Your task to perform on an android device: read, delete, or share a saved page in the chrome app Image 0: 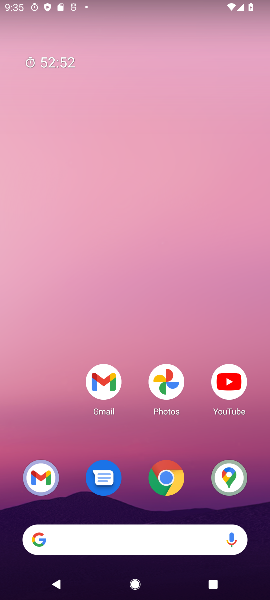
Step 0: press home button
Your task to perform on an android device: read, delete, or share a saved page in the chrome app Image 1: 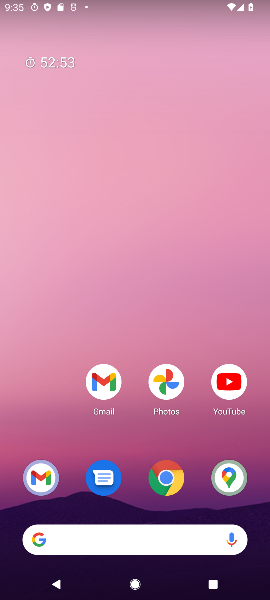
Step 1: click (170, 490)
Your task to perform on an android device: read, delete, or share a saved page in the chrome app Image 2: 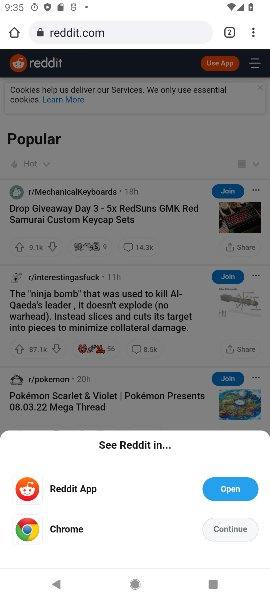
Step 2: task complete